Your task to perform on an android device: check android version Image 0: 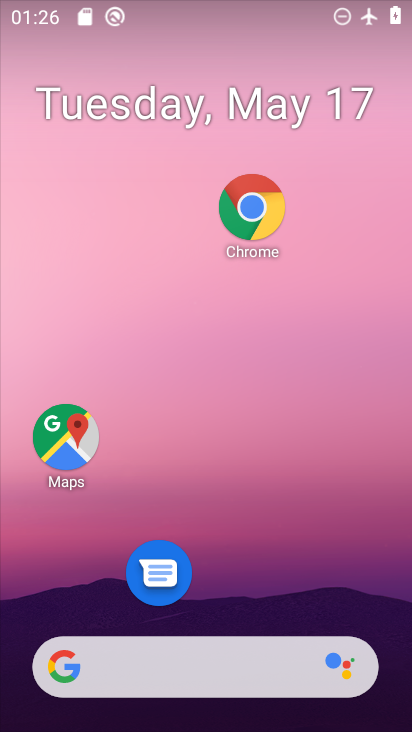
Step 0: drag from (301, 450) to (368, 5)
Your task to perform on an android device: check android version Image 1: 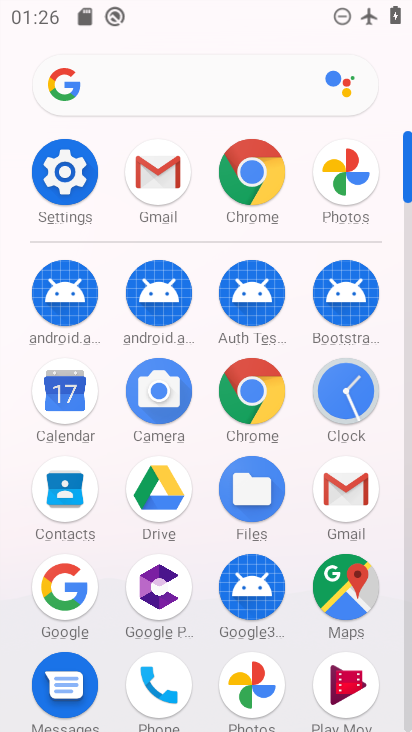
Step 1: drag from (319, 686) to (307, 249)
Your task to perform on an android device: check android version Image 2: 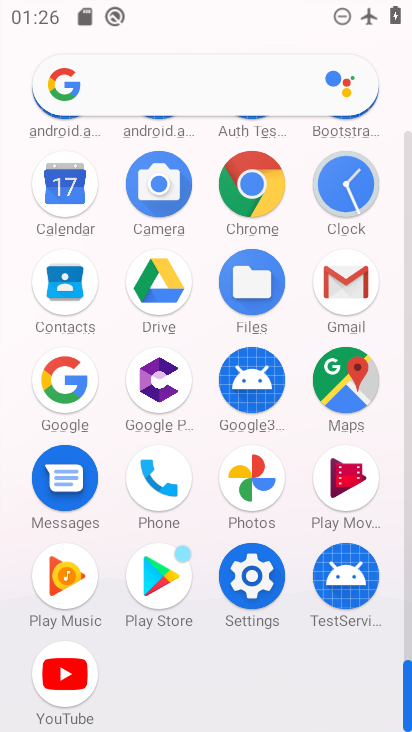
Step 2: click (266, 578)
Your task to perform on an android device: check android version Image 3: 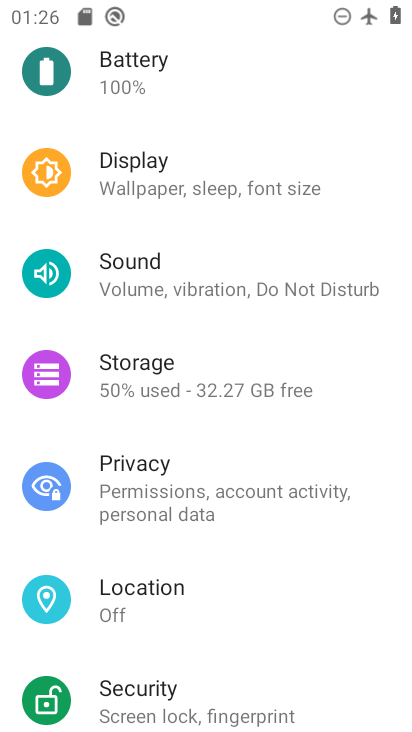
Step 3: drag from (233, 699) to (183, 181)
Your task to perform on an android device: check android version Image 4: 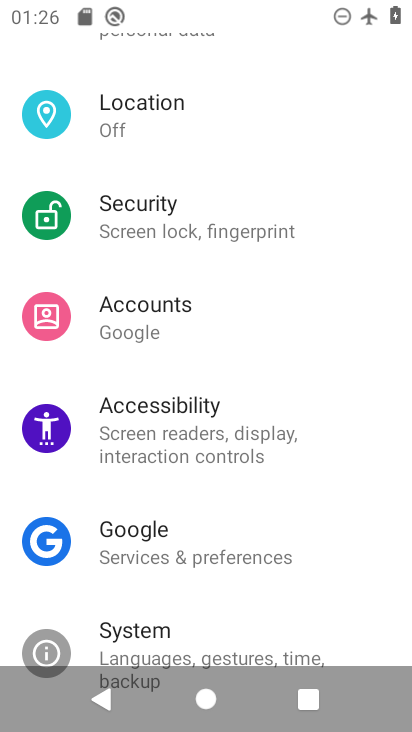
Step 4: drag from (197, 623) to (236, 274)
Your task to perform on an android device: check android version Image 5: 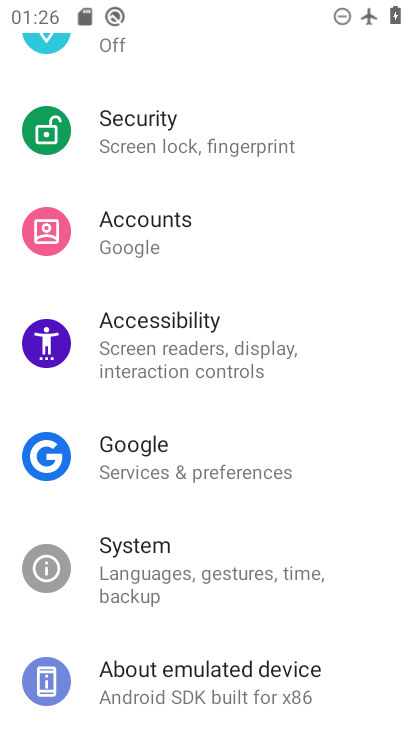
Step 5: click (206, 674)
Your task to perform on an android device: check android version Image 6: 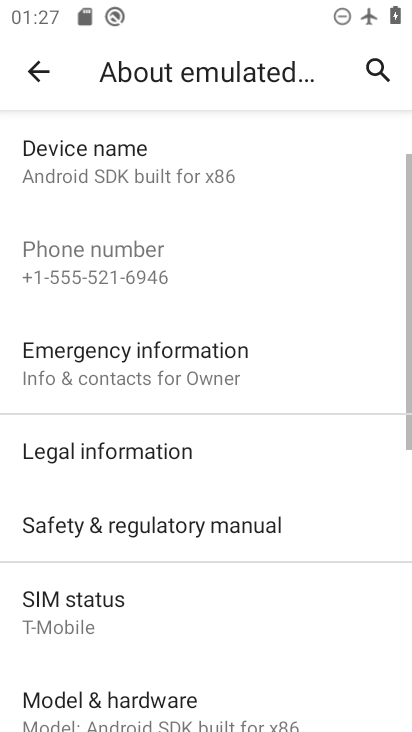
Step 6: drag from (211, 719) to (251, 97)
Your task to perform on an android device: check android version Image 7: 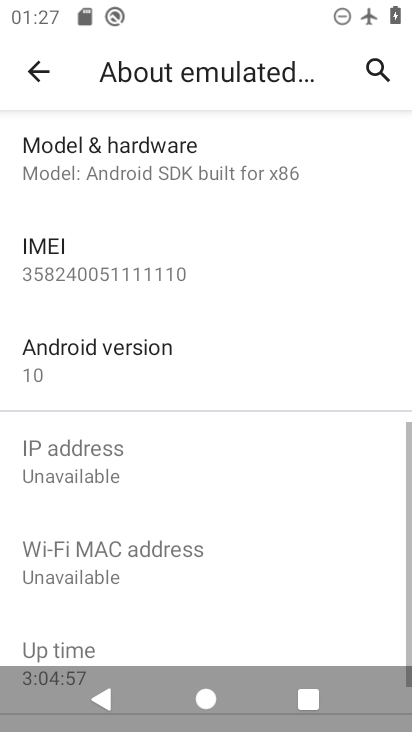
Step 7: drag from (233, 617) to (265, 189)
Your task to perform on an android device: check android version Image 8: 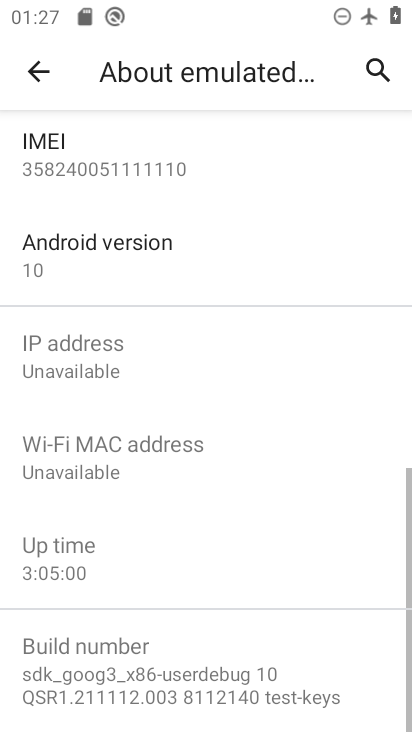
Step 8: click (166, 257)
Your task to perform on an android device: check android version Image 9: 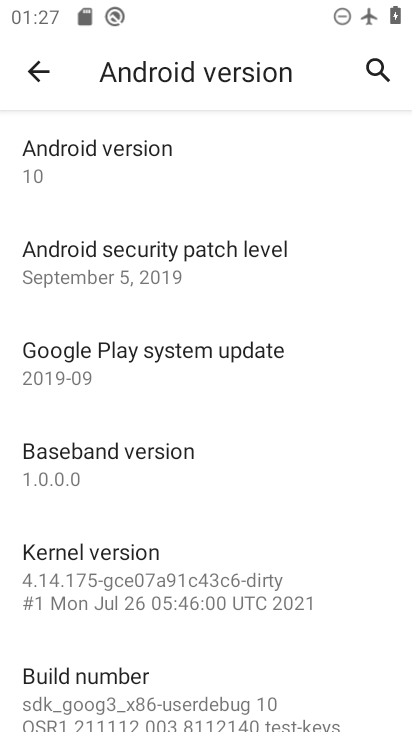
Step 9: task complete